Your task to perform on an android device: Go to location settings Image 0: 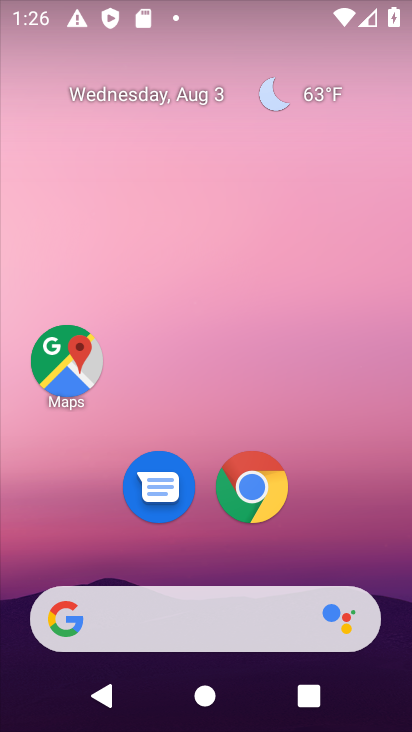
Step 0: drag from (303, 551) to (319, 76)
Your task to perform on an android device: Go to location settings Image 1: 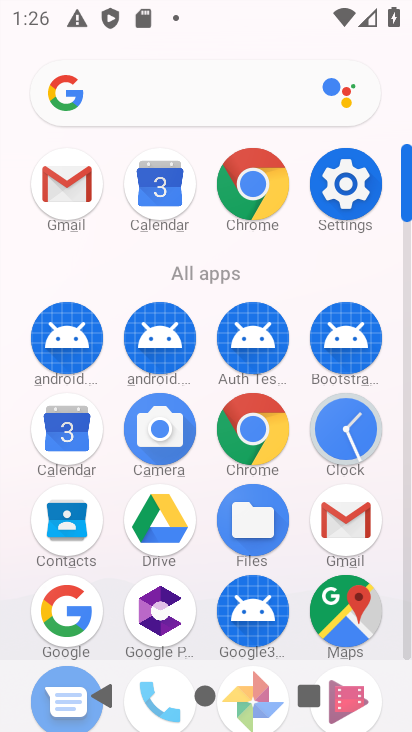
Step 1: click (350, 176)
Your task to perform on an android device: Go to location settings Image 2: 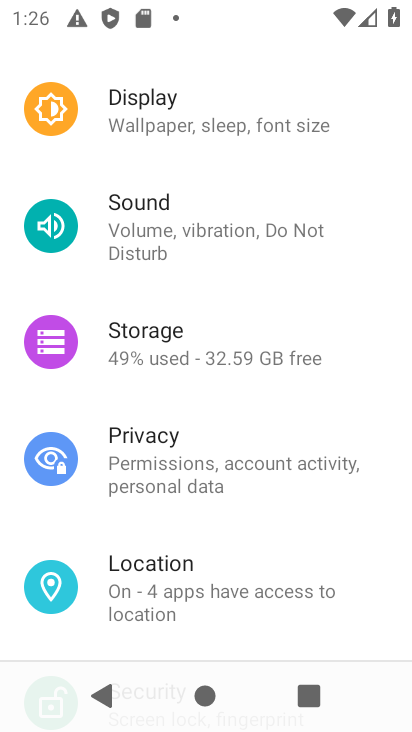
Step 2: click (172, 566)
Your task to perform on an android device: Go to location settings Image 3: 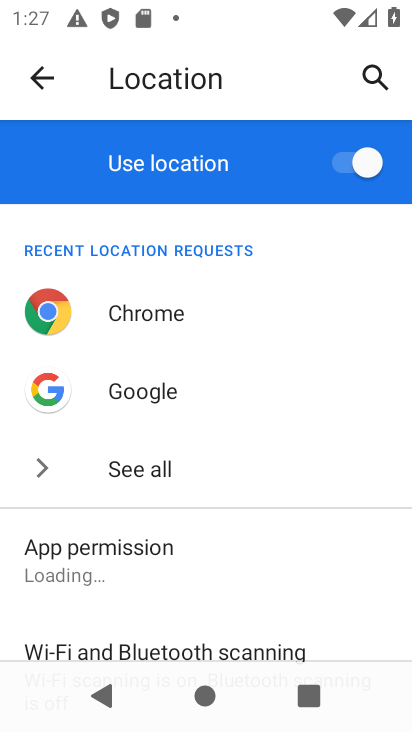
Step 3: task complete